Your task to perform on an android device: turn off javascript in the chrome app Image 0: 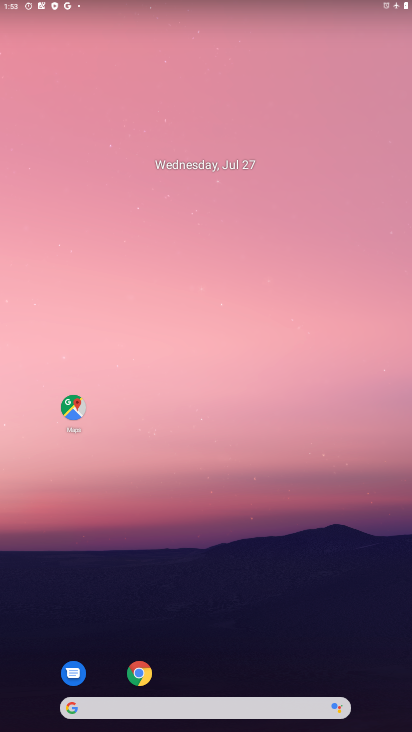
Step 0: click (140, 681)
Your task to perform on an android device: turn off javascript in the chrome app Image 1: 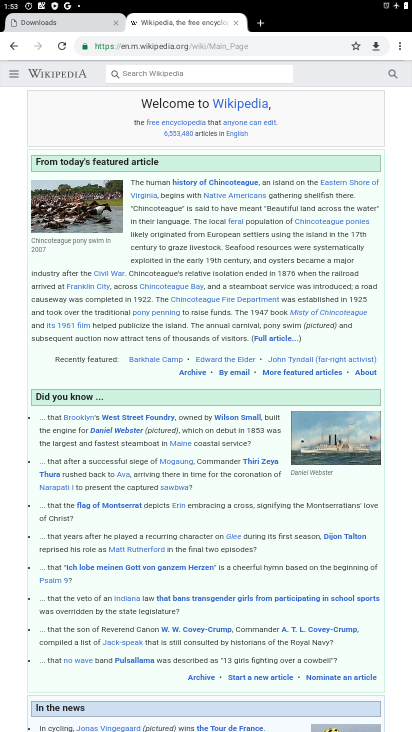
Step 1: drag from (399, 43) to (308, 283)
Your task to perform on an android device: turn off javascript in the chrome app Image 2: 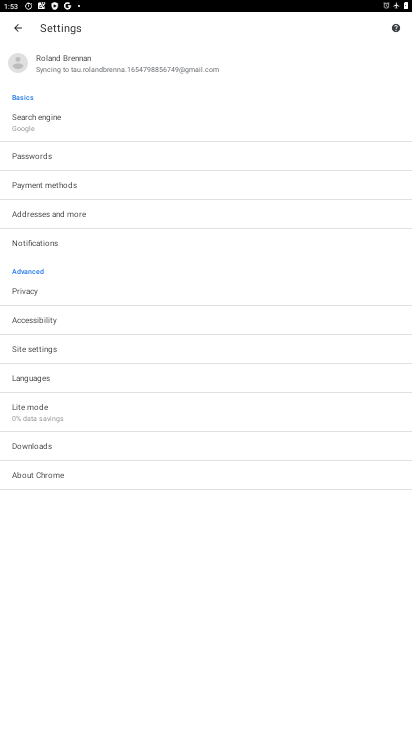
Step 2: click (44, 345)
Your task to perform on an android device: turn off javascript in the chrome app Image 3: 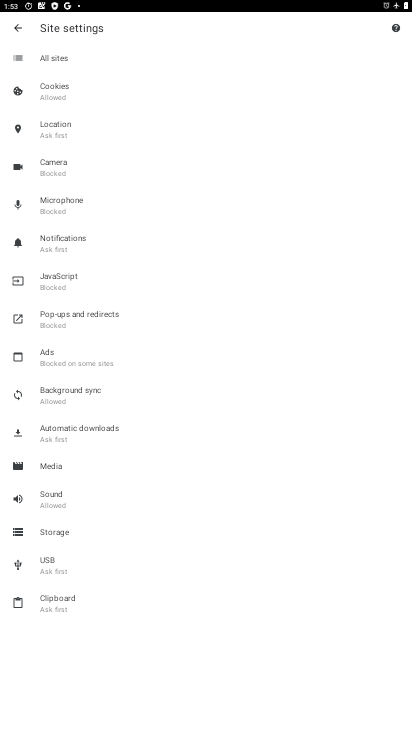
Step 3: click (56, 284)
Your task to perform on an android device: turn off javascript in the chrome app Image 4: 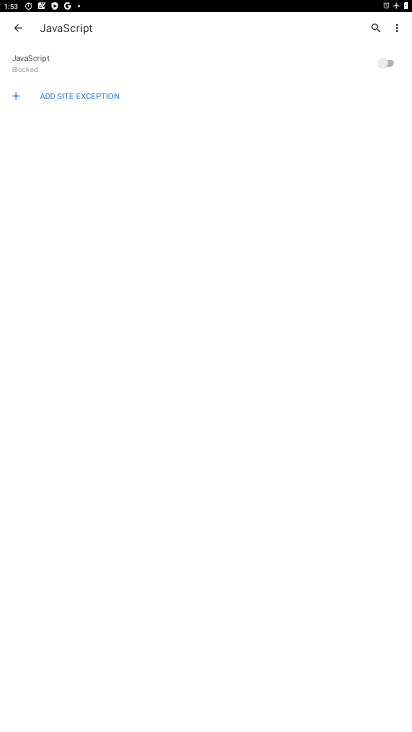
Step 4: task complete